Your task to perform on an android device: Go to eBay Image 0: 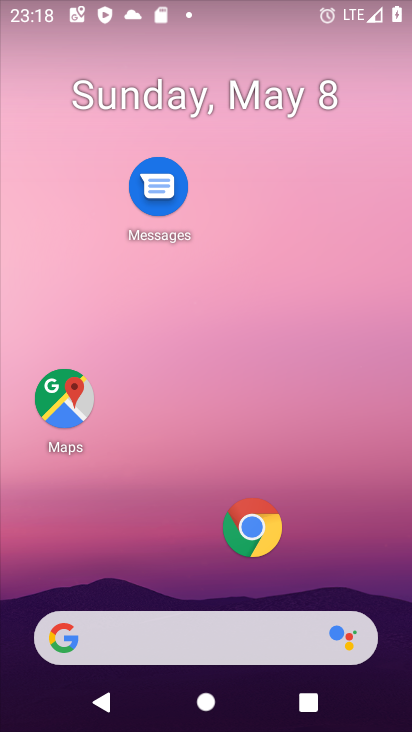
Step 0: drag from (171, 558) to (220, 124)
Your task to perform on an android device: Go to eBay Image 1: 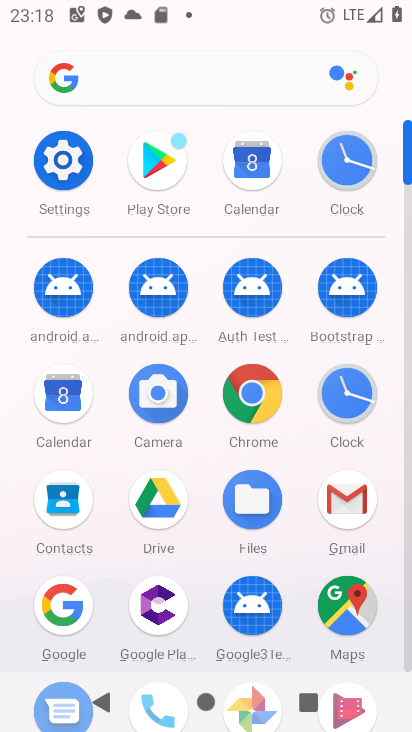
Step 1: click (61, 609)
Your task to perform on an android device: Go to eBay Image 2: 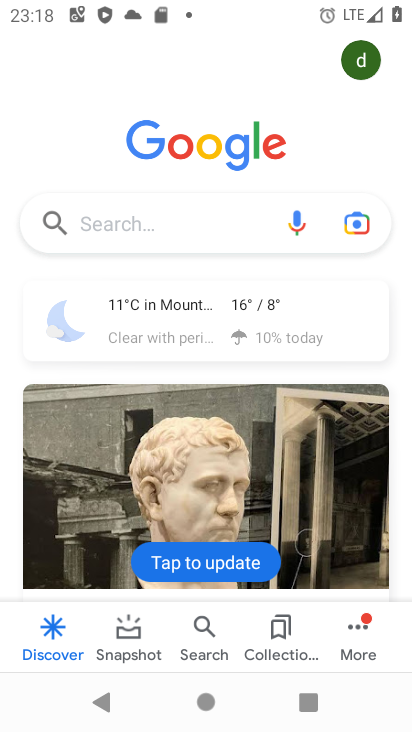
Step 2: click (139, 218)
Your task to perform on an android device: Go to eBay Image 3: 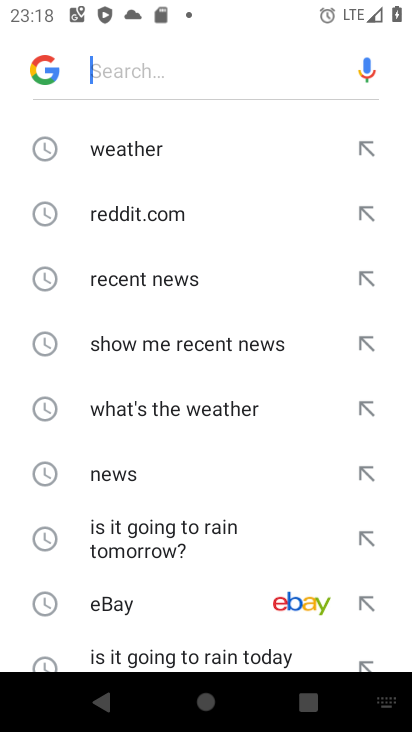
Step 3: click (137, 602)
Your task to perform on an android device: Go to eBay Image 4: 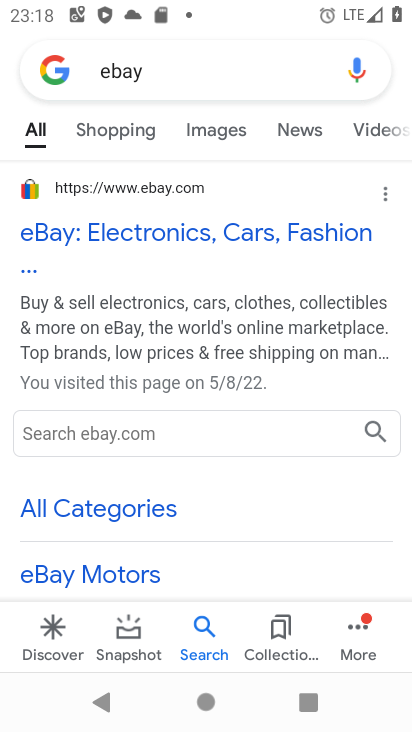
Step 4: click (141, 235)
Your task to perform on an android device: Go to eBay Image 5: 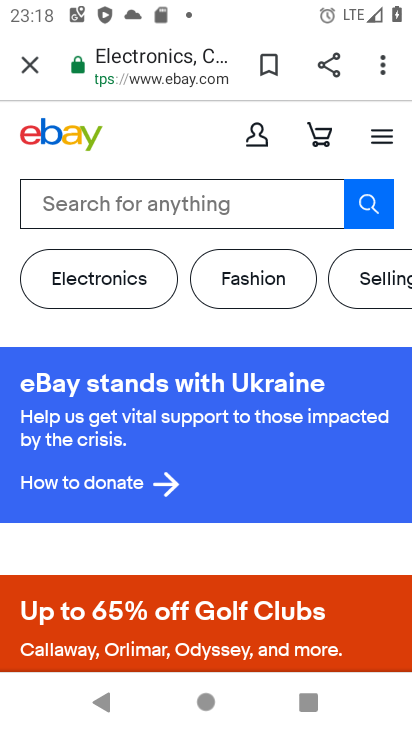
Step 5: task complete